Your task to perform on an android device: Toggle the flashlight Image 0: 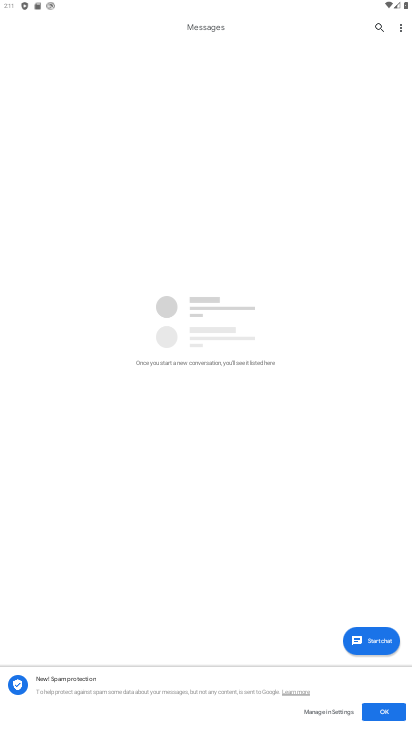
Step 0: press home button
Your task to perform on an android device: Toggle the flashlight Image 1: 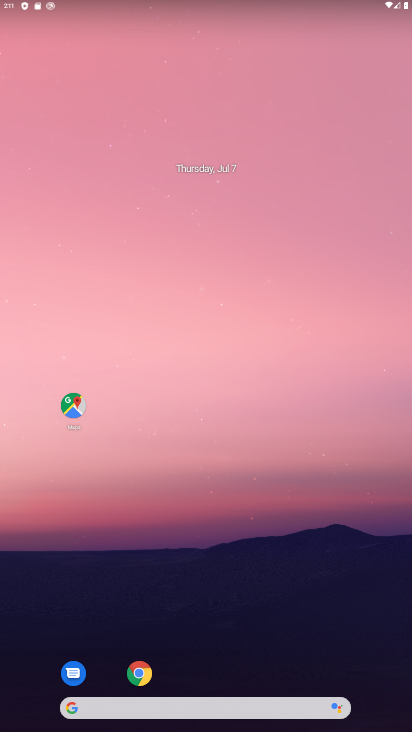
Step 1: task complete